Your task to perform on an android device: Play the last video I watched on Youtube Image 0: 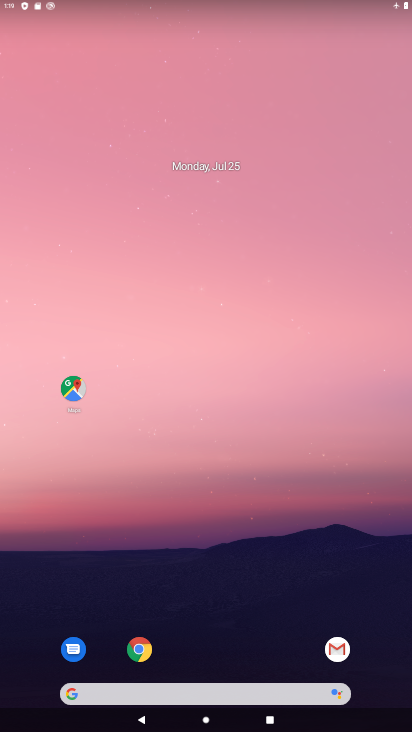
Step 0: drag from (335, 703) to (276, 230)
Your task to perform on an android device: Play the last video I watched on Youtube Image 1: 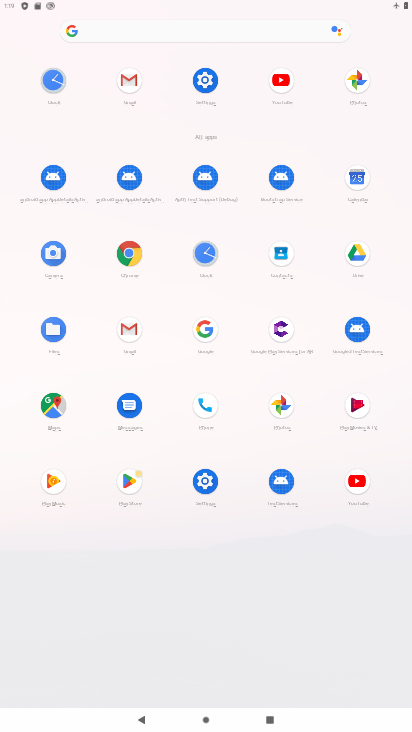
Step 1: click (356, 488)
Your task to perform on an android device: Play the last video I watched on Youtube Image 2: 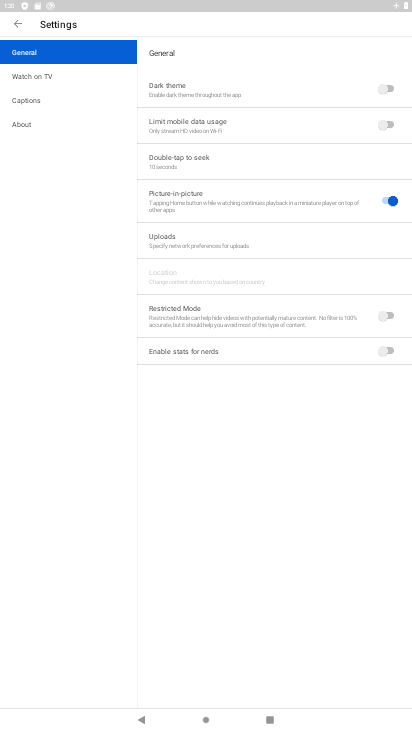
Step 2: click (16, 25)
Your task to perform on an android device: Play the last video I watched on Youtube Image 3: 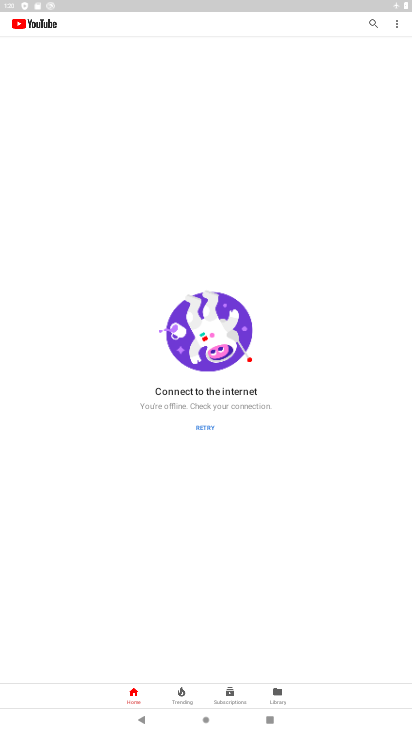
Step 3: click (269, 692)
Your task to perform on an android device: Play the last video I watched on Youtube Image 4: 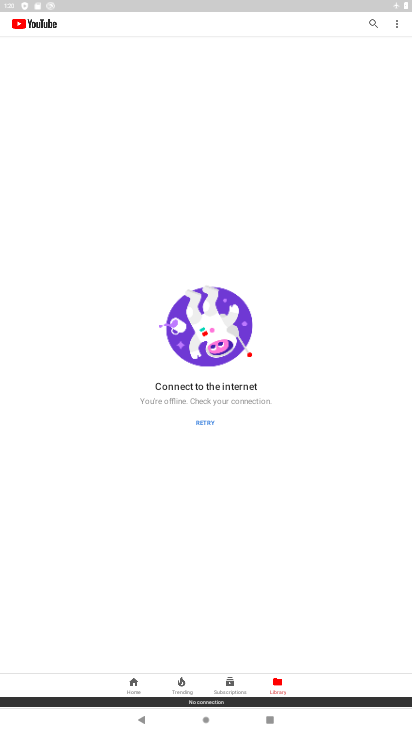
Step 4: click (269, 686)
Your task to perform on an android device: Play the last video I watched on Youtube Image 5: 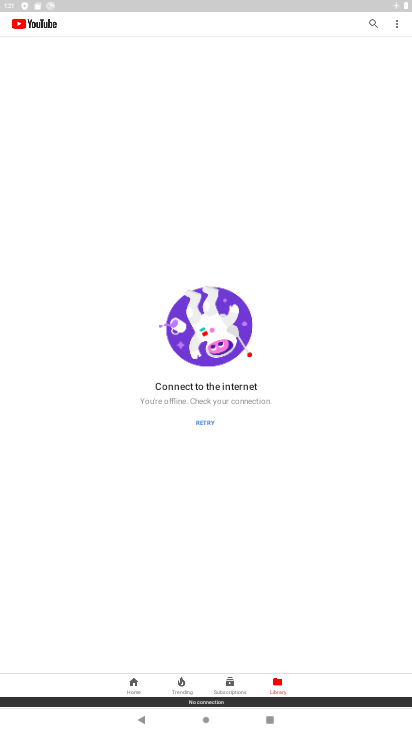
Step 5: task complete